Your task to perform on an android device: Do I have any events this weekend? Image 0: 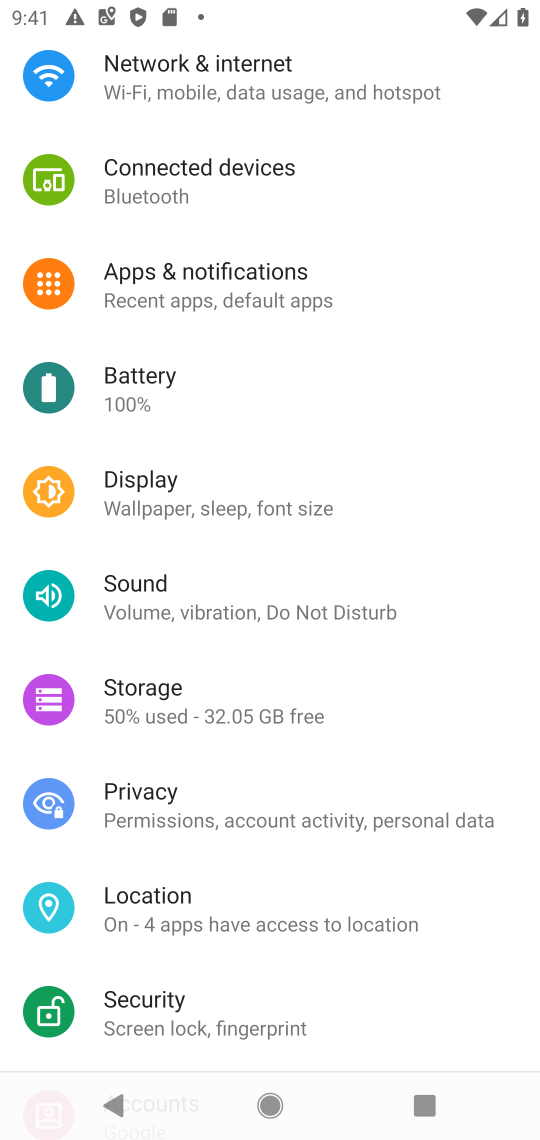
Step 0: press home button
Your task to perform on an android device: Do I have any events this weekend? Image 1: 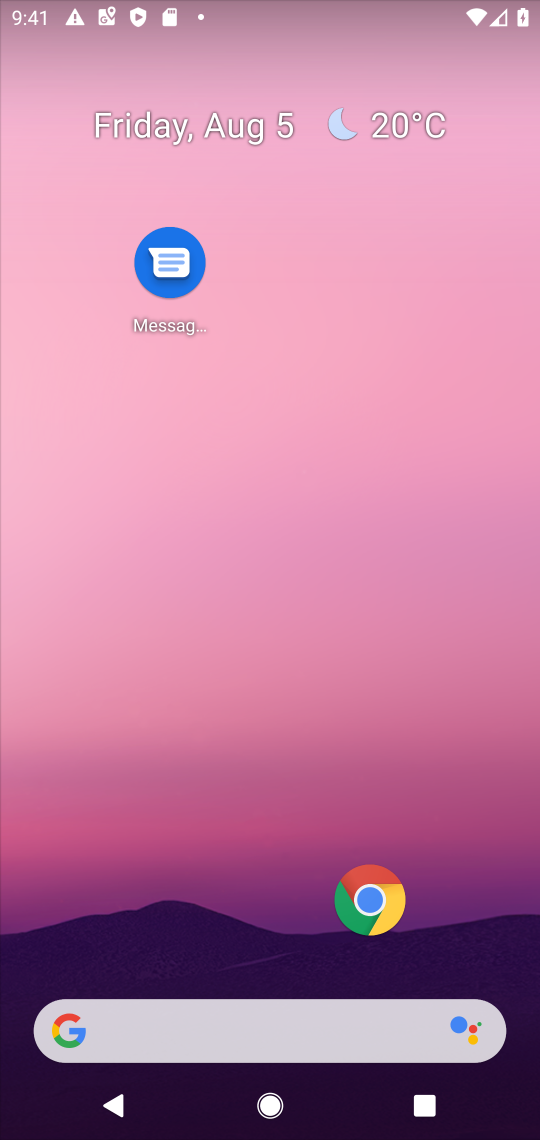
Step 1: drag from (227, 944) to (214, 302)
Your task to perform on an android device: Do I have any events this weekend? Image 2: 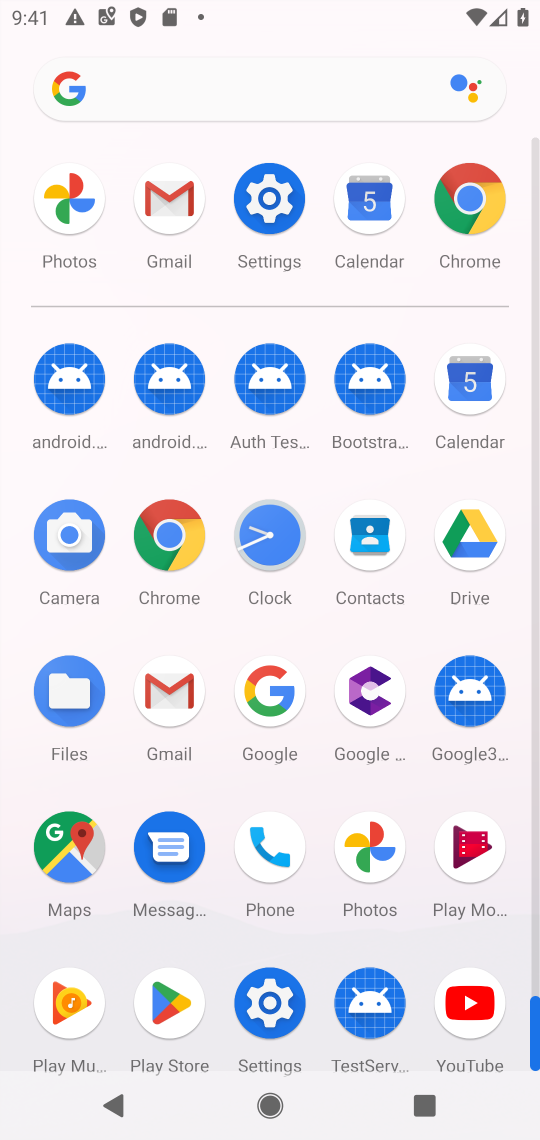
Step 2: click (473, 416)
Your task to perform on an android device: Do I have any events this weekend? Image 3: 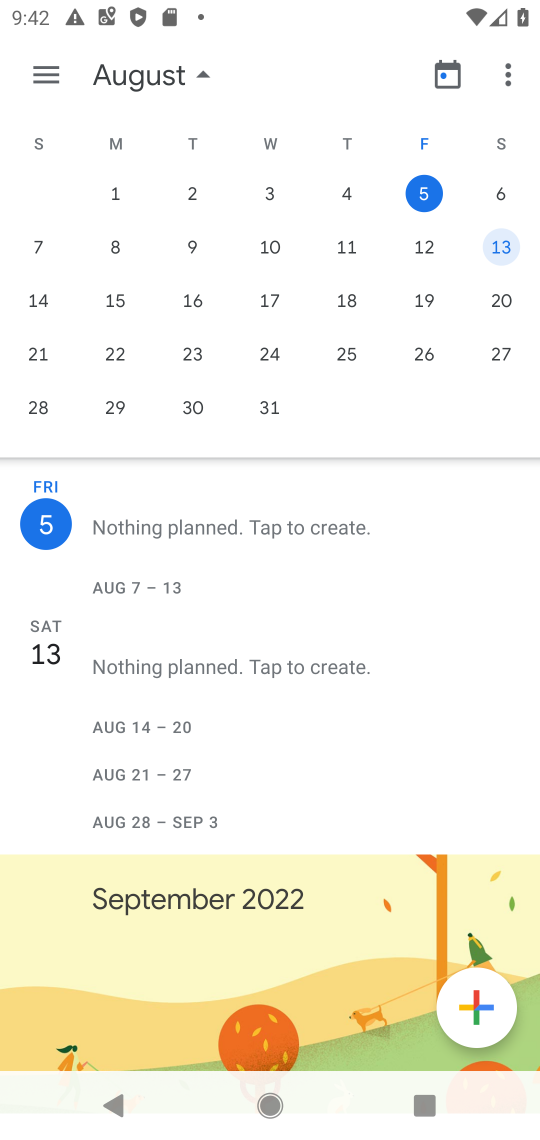
Step 3: click (419, 246)
Your task to perform on an android device: Do I have any events this weekend? Image 4: 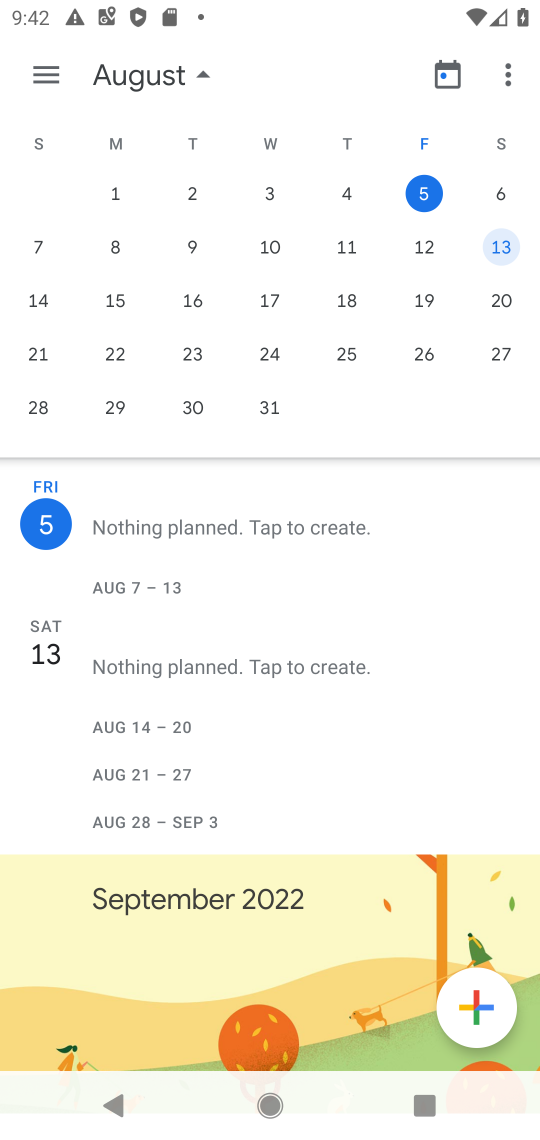
Step 4: click (494, 188)
Your task to perform on an android device: Do I have any events this weekend? Image 5: 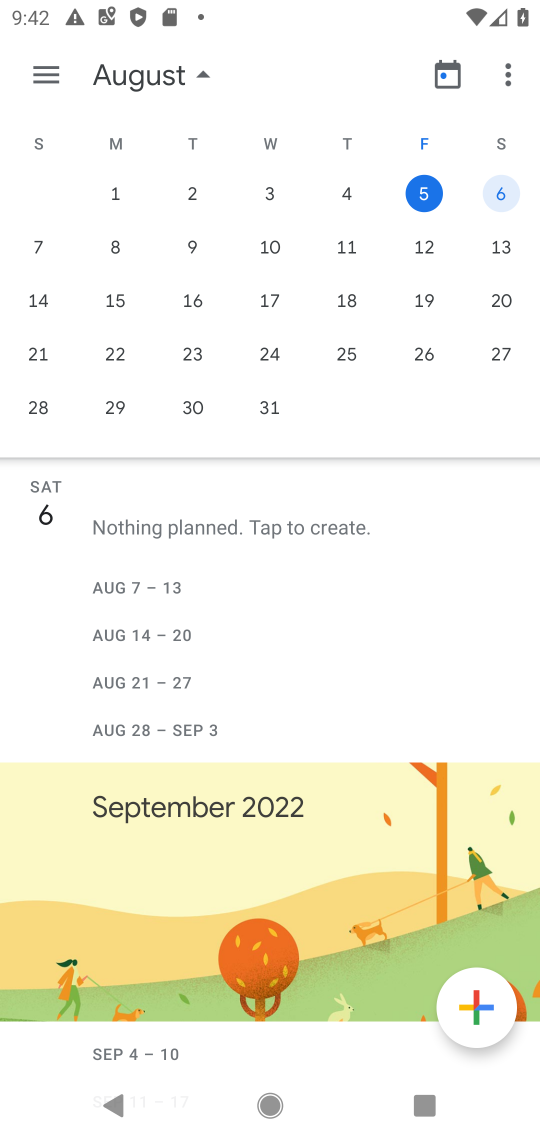
Step 5: task complete